Your task to perform on an android device: What's the weather going to be tomorrow? Image 0: 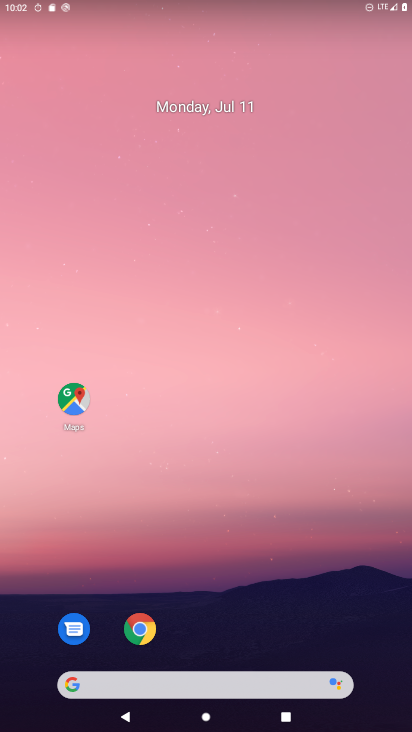
Step 0: click (128, 679)
Your task to perform on an android device: What's the weather going to be tomorrow? Image 1: 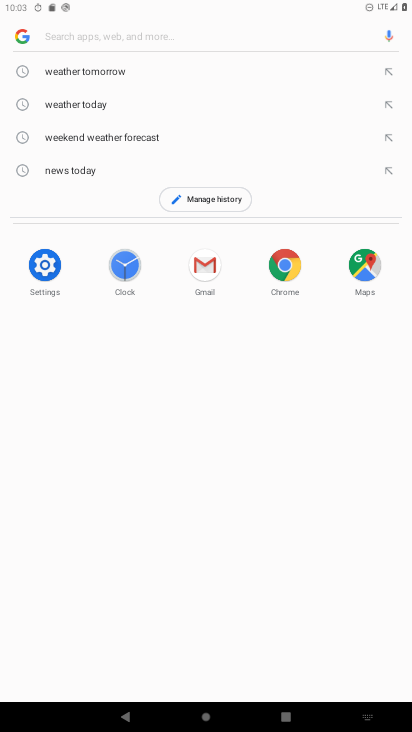
Step 1: click (132, 65)
Your task to perform on an android device: What's the weather going to be tomorrow? Image 2: 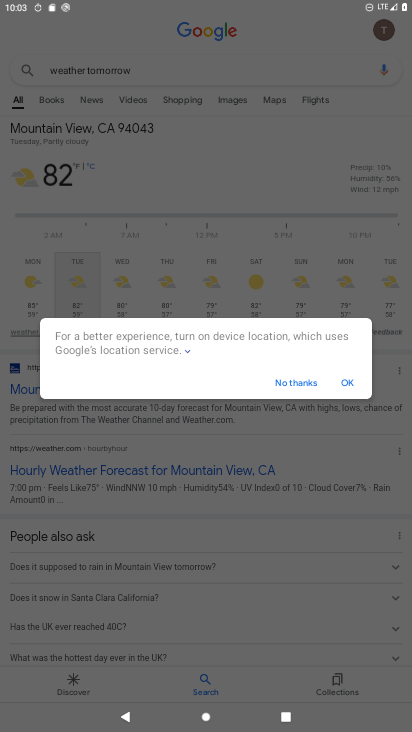
Step 2: click (344, 378)
Your task to perform on an android device: What's the weather going to be tomorrow? Image 3: 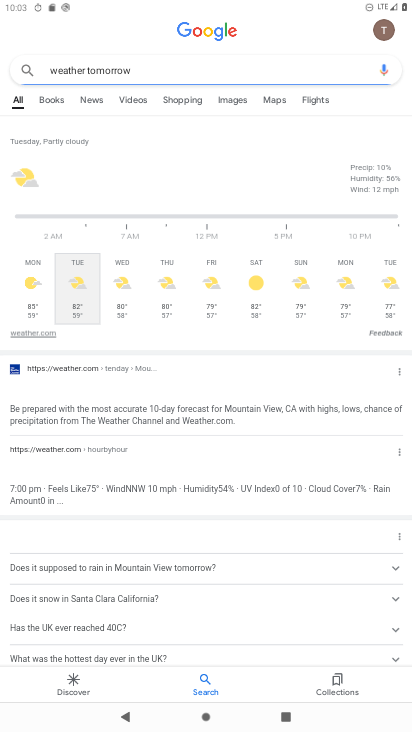
Step 3: task complete